Your task to perform on an android device: toggle sleep mode Image 0: 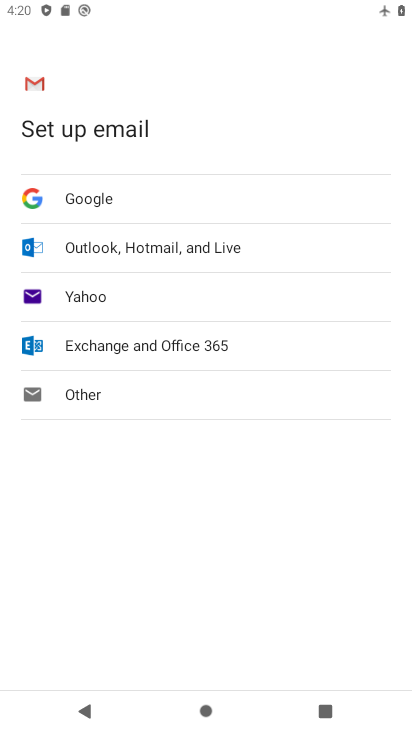
Step 0: press back button
Your task to perform on an android device: toggle sleep mode Image 1: 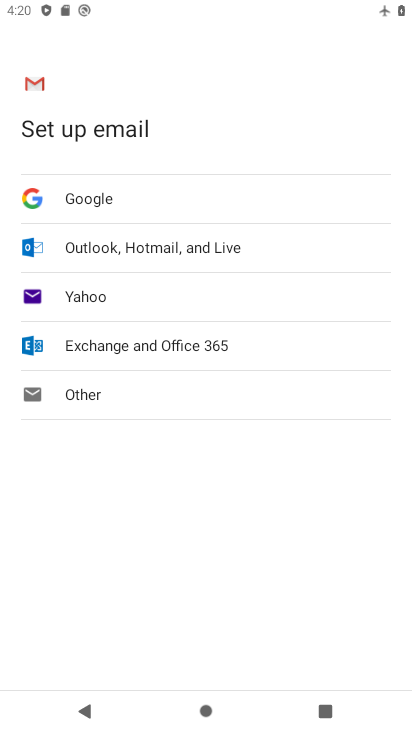
Step 1: press back button
Your task to perform on an android device: toggle sleep mode Image 2: 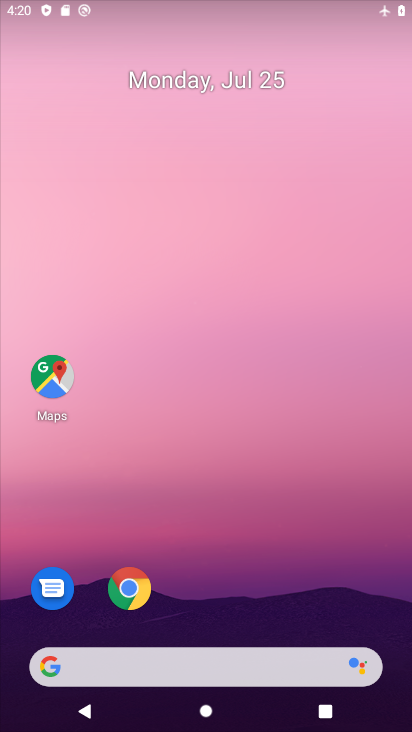
Step 2: click (249, 175)
Your task to perform on an android device: toggle sleep mode Image 3: 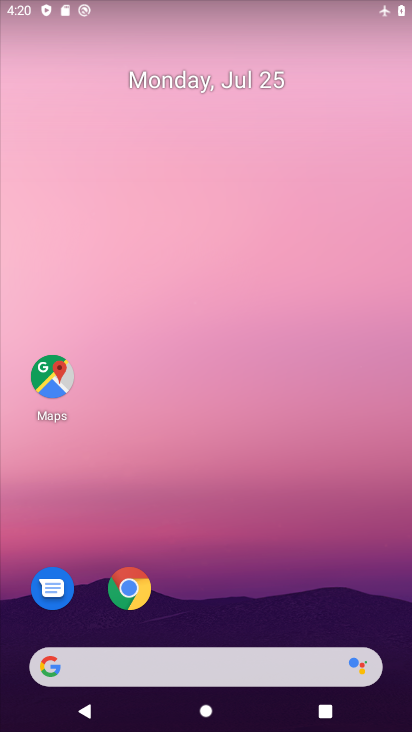
Step 3: drag from (236, 606) to (225, 156)
Your task to perform on an android device: toggle sleep mode Image 4: 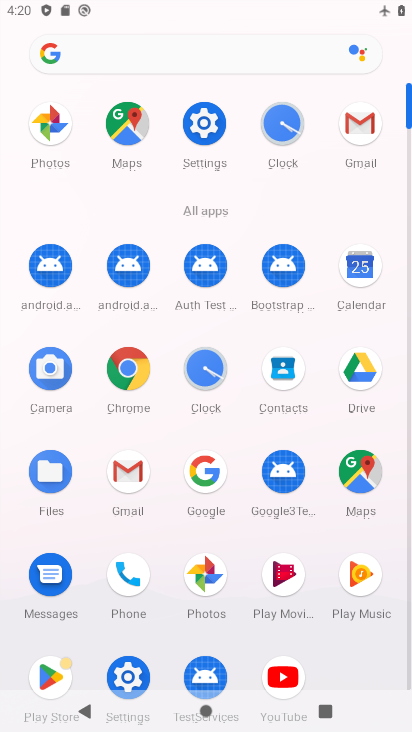
Step 4: click (197, 113)
Your task to perform on an android device: toggle sleep mode Image 5: 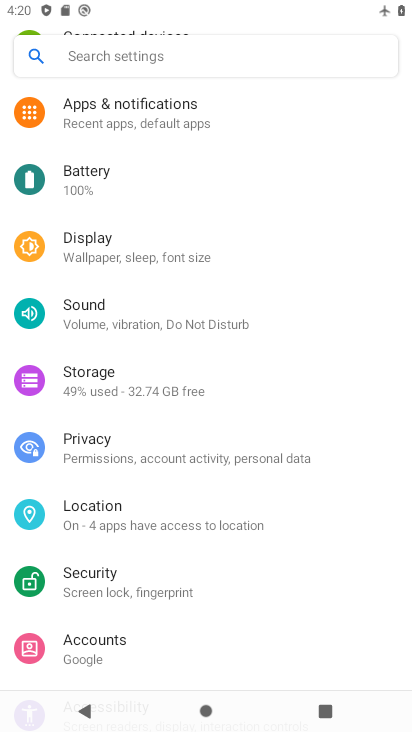
Step 5: drag from (104, 208) to (122, 499)
Your task to perform on an android device: toggle sleep mode Image 6: 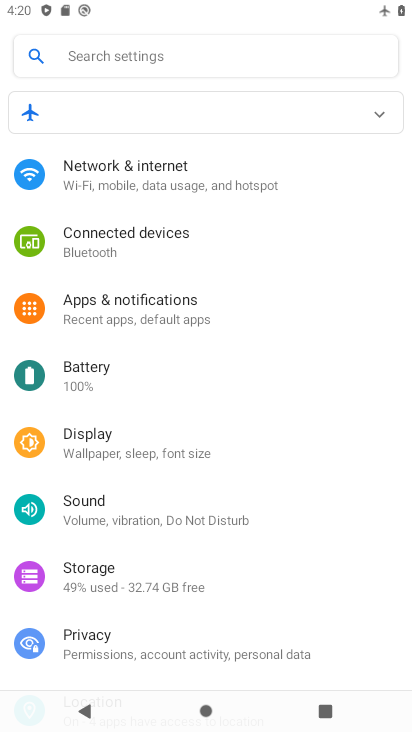
Step 6: click (75, 446)
Your task to perform on an android device: toggle sleep mode Image 7: 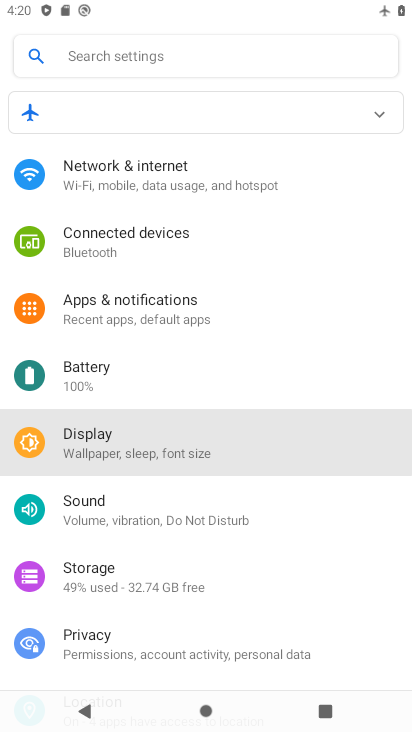
Step 7: click (77, 445)
Your task to perform on an android device: toggle sleep mode Image 8: 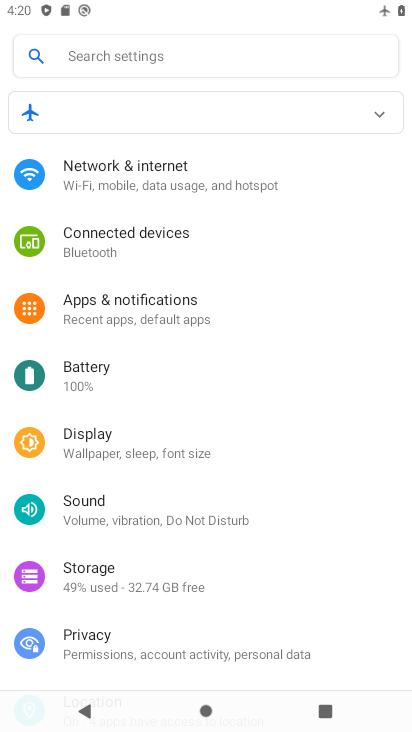
Step 8: click (80, 446)
Your task to perform on an android device: toggle sleep mode Image 9: 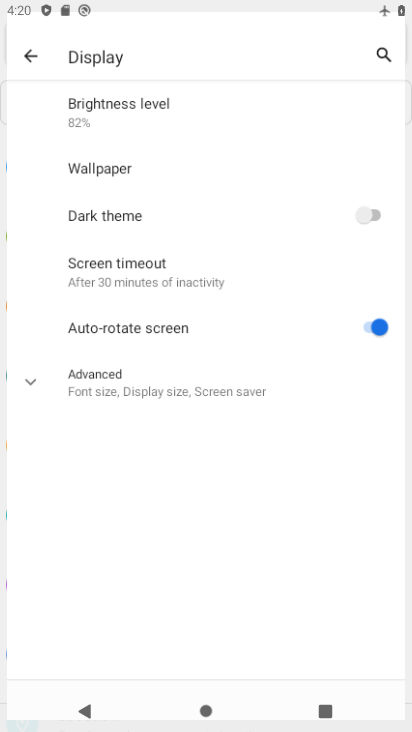
Step 9: click (81, 446)
Your task to perform on an android device: toggle sleep mode Image 10: 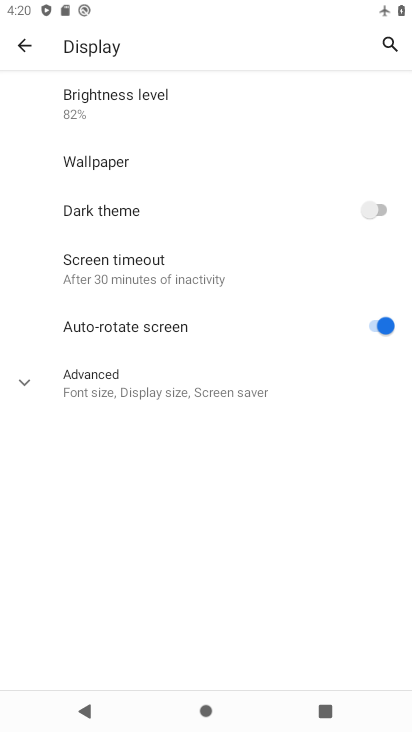
Step 10: click (114, 275)
Your task to perform on an android device: toggle sleep mode Image 11: 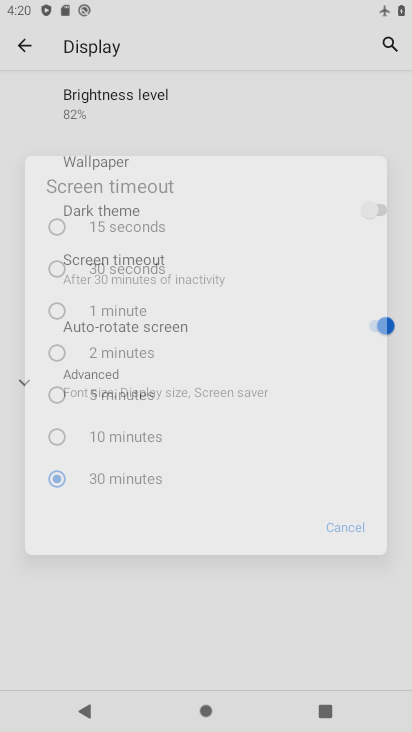
Step 11: click (112, 272)
Your task to perform on an android device: toggle sleep mode Image 12: 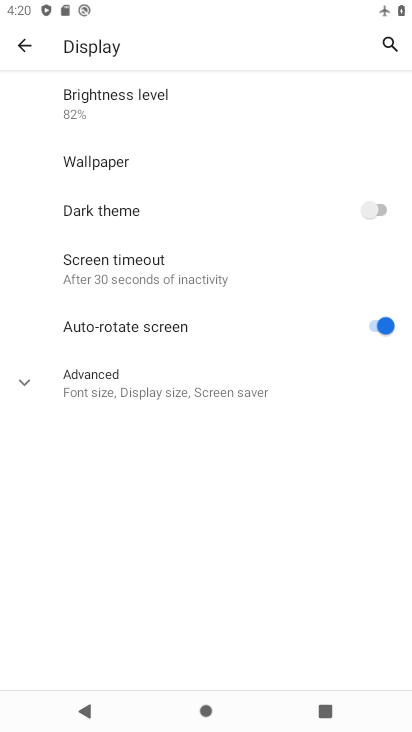
Step 12: click (114, 275)
Your task to perform on an android device: toggle sleep mode Image 13: 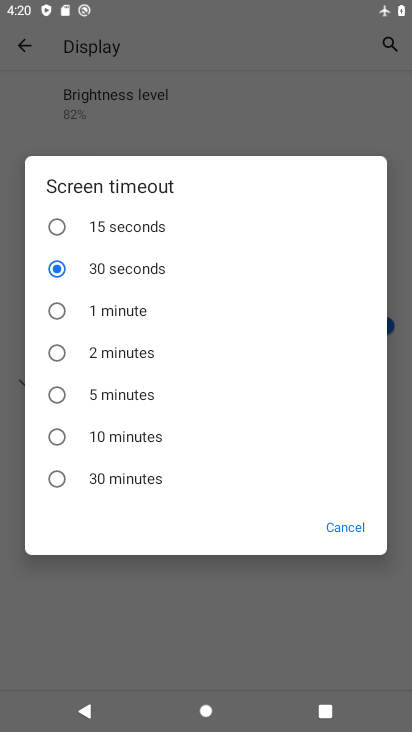
Step 13: task complete